Your task to perform on an android device: Go to privacy settings Image 0: 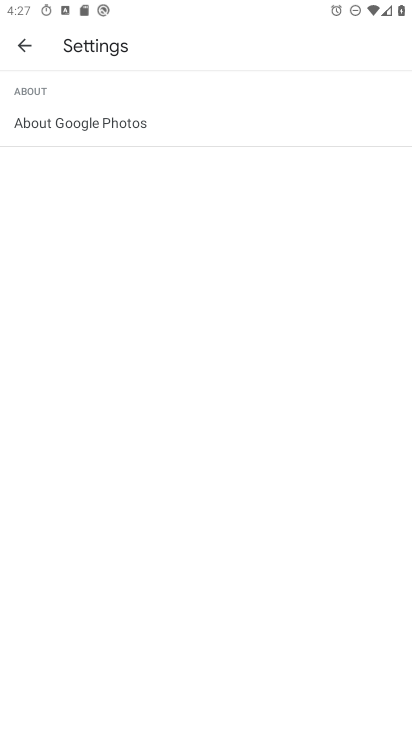
Step 0: press home button
Your task to perform on an android device: Go to privacy settings Image 1: 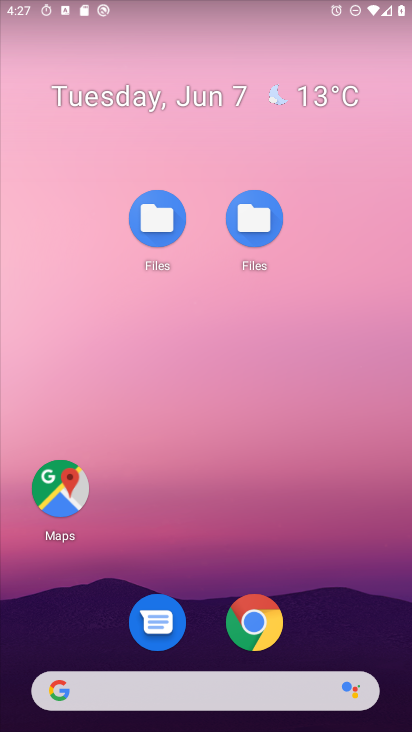
Step 1: drag from (379, 611) to (404, 198)
Your task to perform on an android device: Go to privacy settings Image 2: 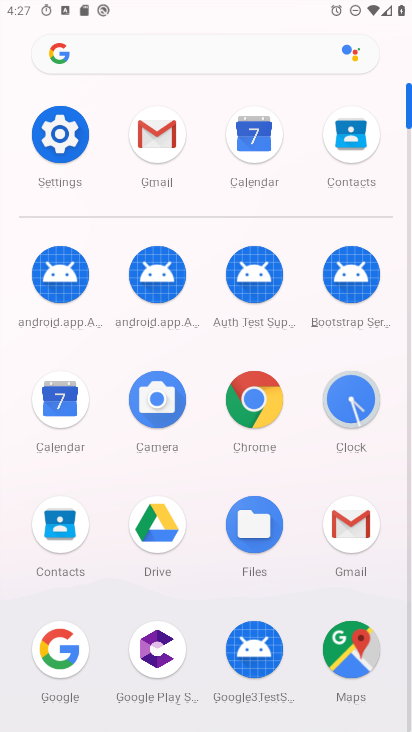
Step 2: click (62, 144)
Your task to perform on an android device: Go to privacy settings Image 3: 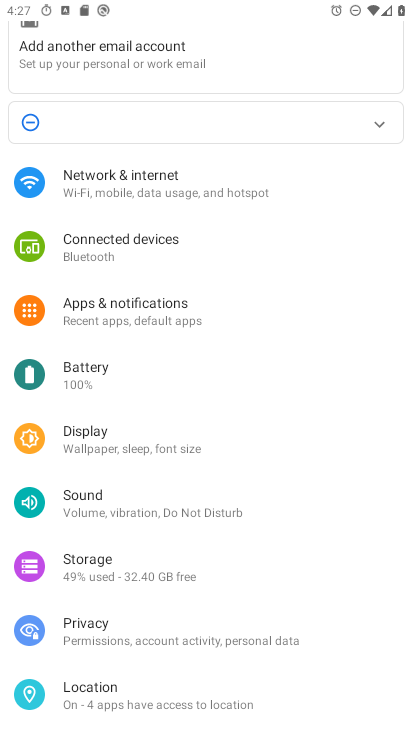
Step 3: click (85, 627)
Your task to perform on an android device: Go to privacy settings Image 4: 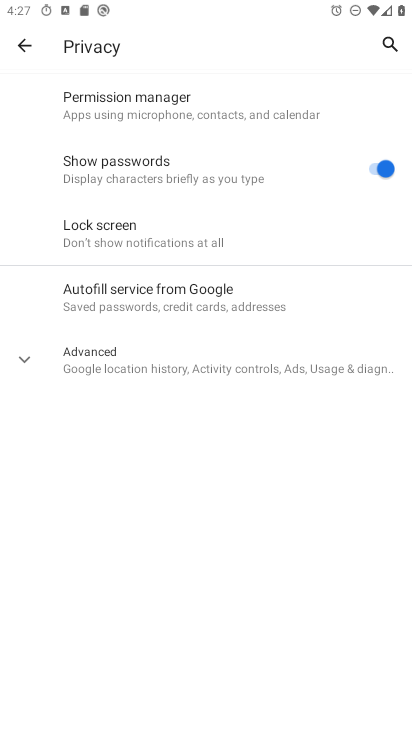
Step 4: task complete